Your task to perform on an android device: turn pop-ups off in chrome Image 0: 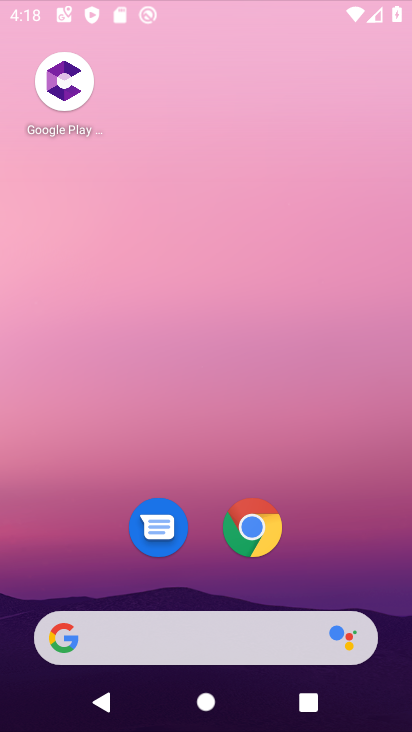
Step 0: drag from (264, 541) to (273, 115)
Your task to perform on an android device: turn pop-ups off in chrome Image 1: 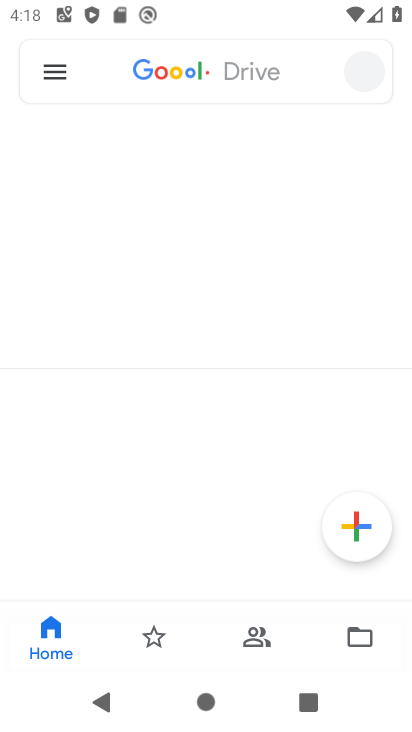
Step 1: press home button
Your task to perform on an android device: turn pop-ups off in chrome Image 2: 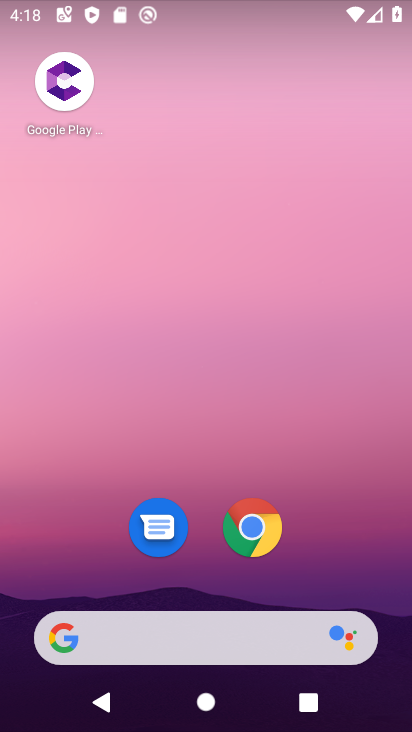
Step 2: drag from (199, 557) to (202, 140)
Your task to perform on an android device: turn pop-ups off in chrome Image 3: 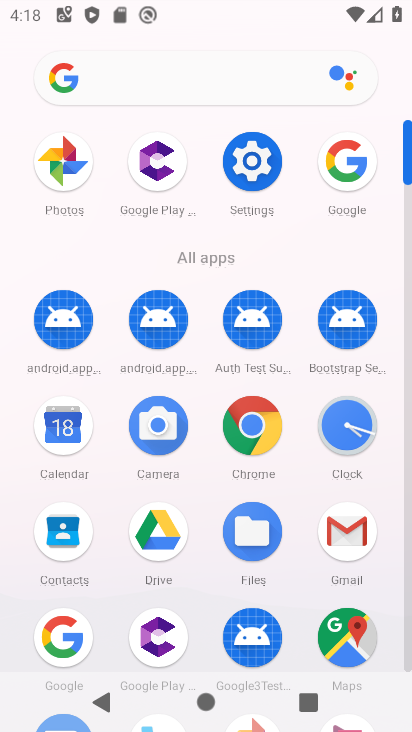
Step 3: click (248, 419)
Your task to perform on an android device: turn pop-ups off in chrome Image 4: 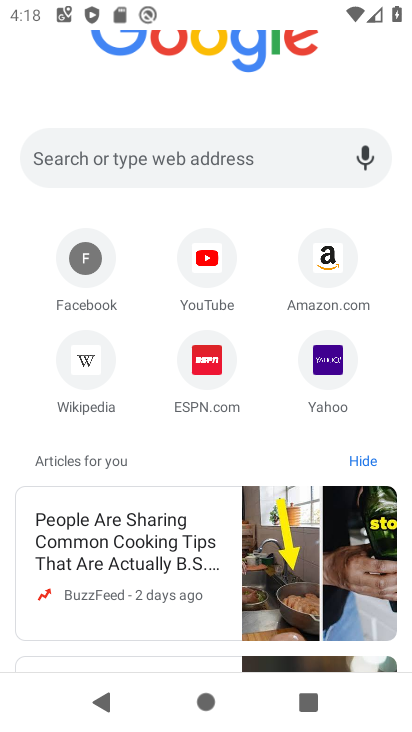
Step 4: drag from (283, 93) to (275, 407)
Your task to perform on an android device: turn pop-ups off in chrome Image 5: 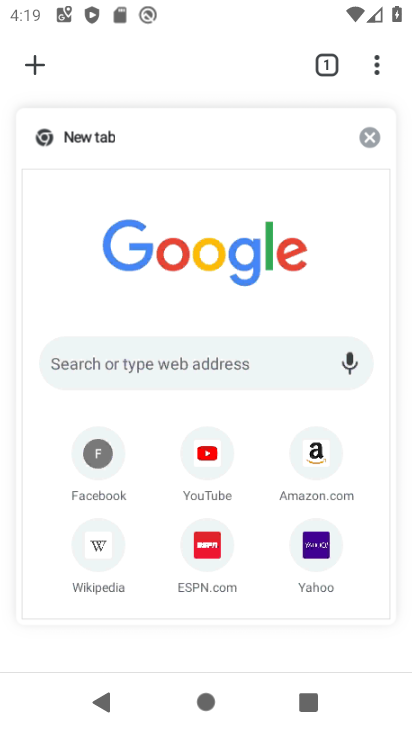
Step 5: click (248, 309)
Your task to perform on an android device: turn pop-ups off in chrome Image 6: 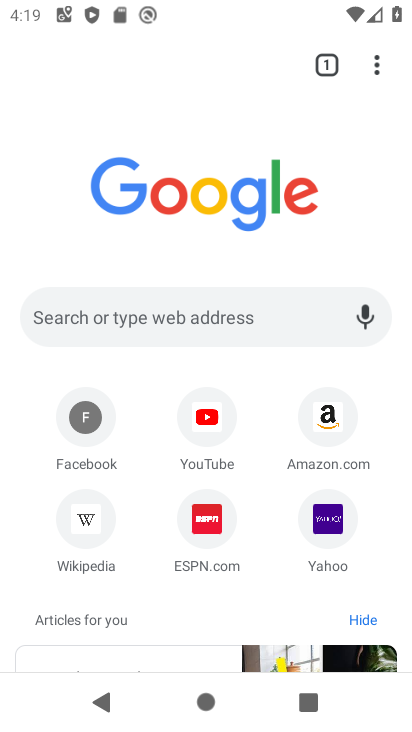
Step 6: click (374, 59)
Your task to perform on an android device: turn pop-ups off in chrome Image 7: 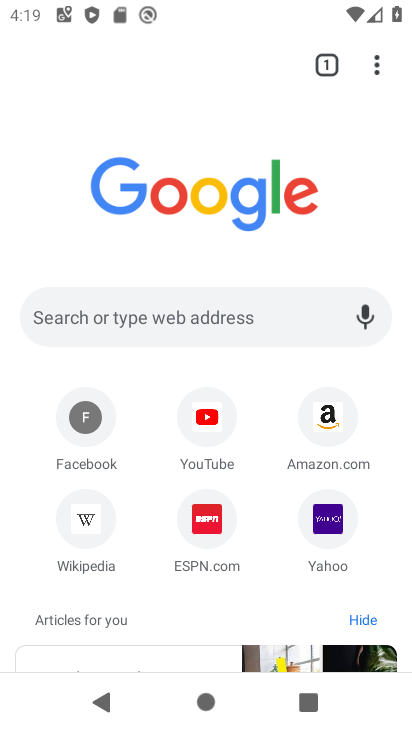
Step 7: click (376, 62)
Your task to perform on an android device: turn pop-ups off in chrome Image 8: 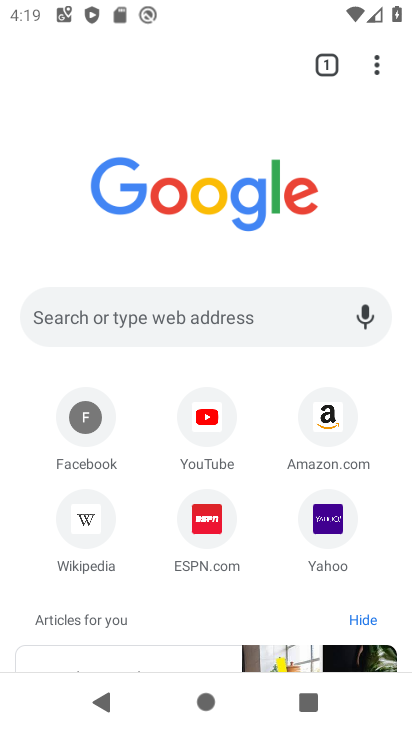
Step 8: click (376, 64)
Your task to perform on an android device: turn pop-ups off in chrome Image 9: 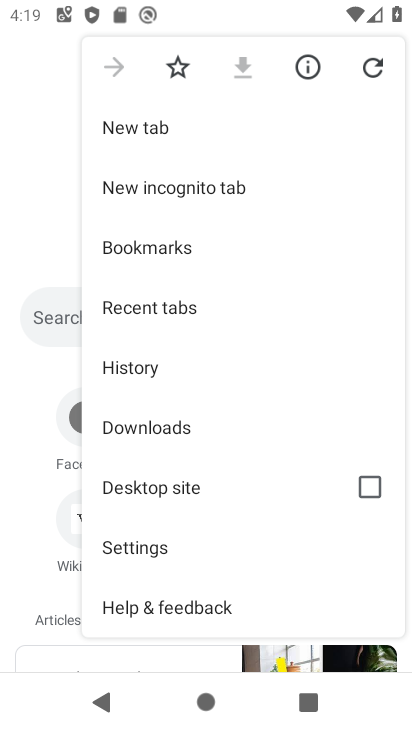
Step 9: click (177, 545)
Your task to perform on an android device: turn pop-ups off in chrome Image 10: 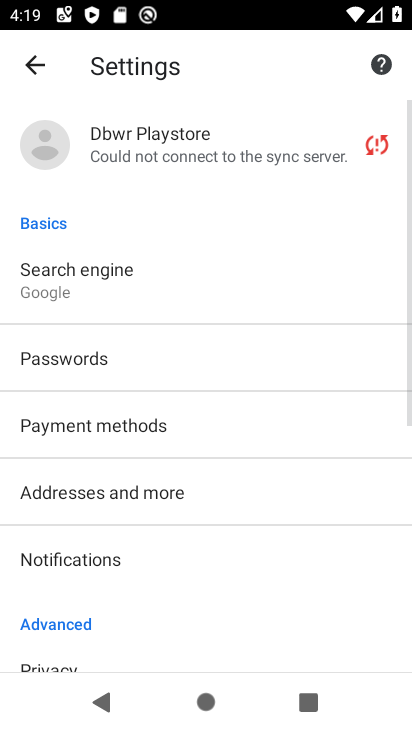
Step 10: drag from (195, 593) to (192, 157)
Your task to perform on an android device: turn pop-ups off in chrome Image 11: 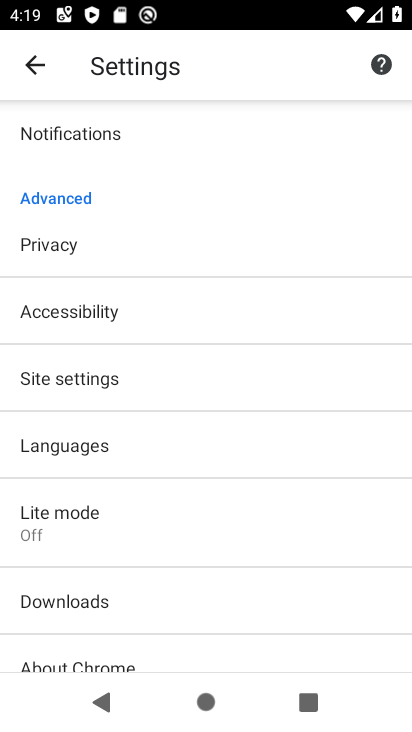
Step 11: click (135, 377)
Your task to perform on an android device: turn pop-ups off in chrome Image 12: 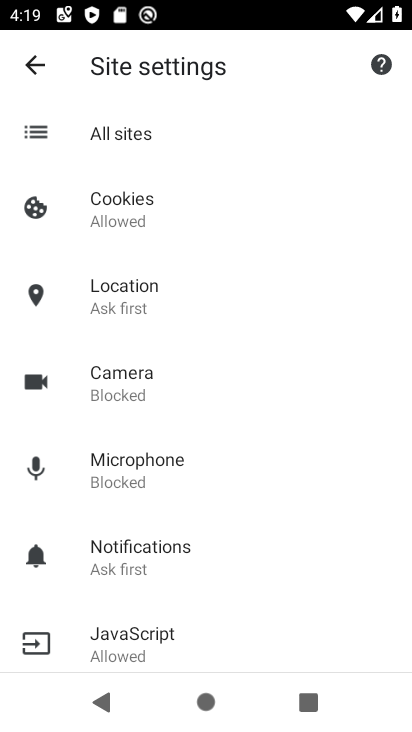
Step 12: drag from (199, 617) to (257, 185)
Your task to perform on an android device: turn pop-ups off in chrome Image 13: 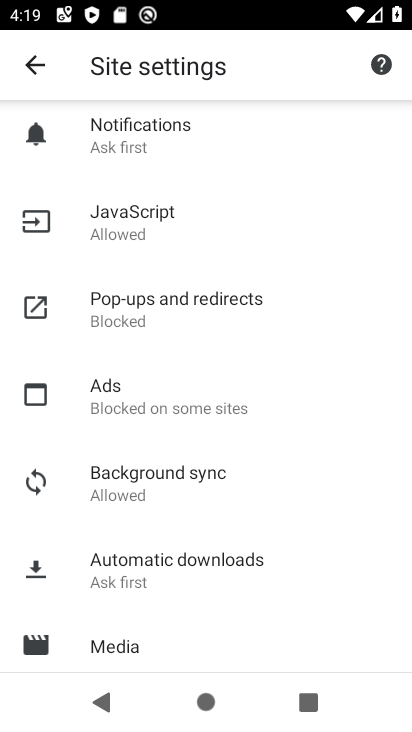
Step 13: click (184, 311)
Your task to perform on an android device: turn pop-ups off in chrome Image 14: 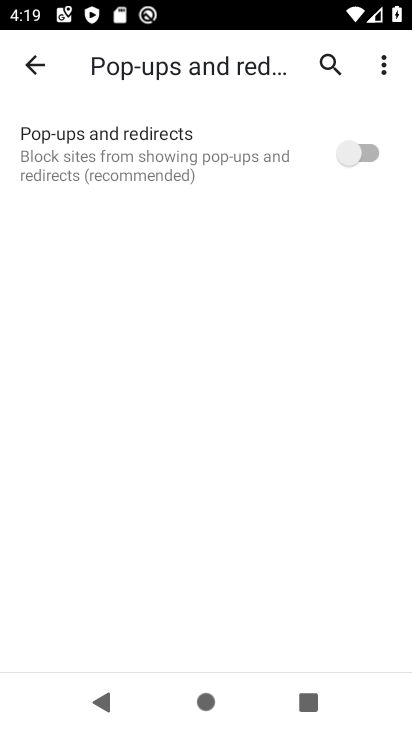
Step 14: task complete